Your task to perform on an android device: open a new tab in the chrome app Image 0: 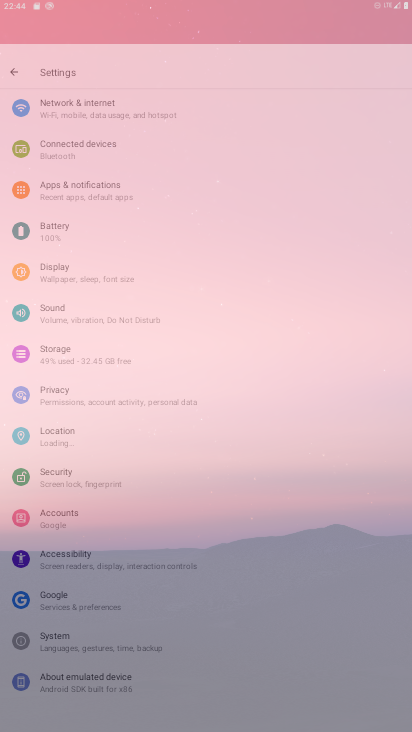
Step 0: click (214, 235)
Your task to perform on an android device: open a new tab in the chrome app Image 1: 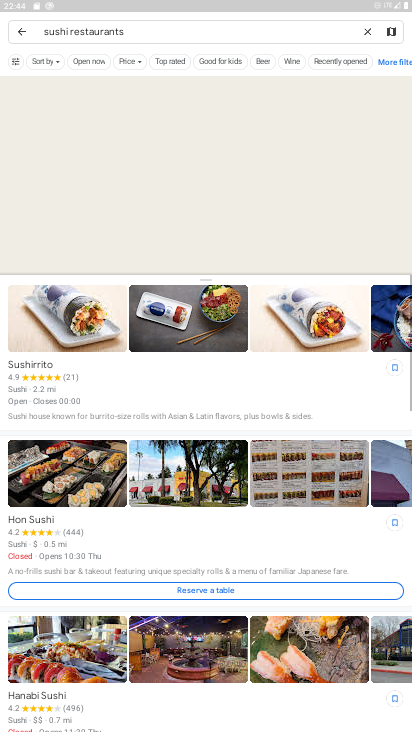
Step 1: press home button
Your task to perform on an android device: open a new tab in the chrome app Image 2: 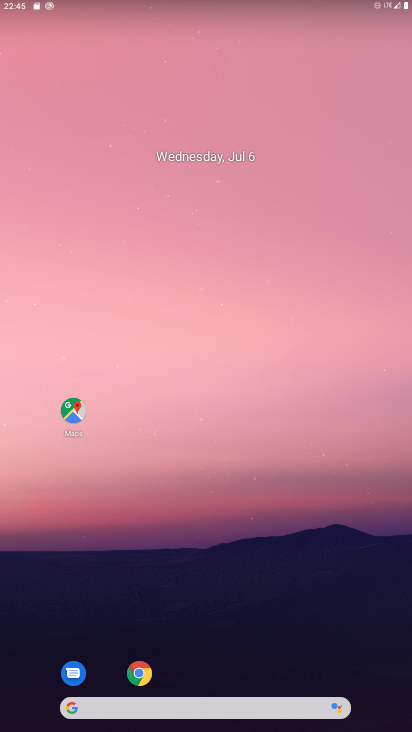
Step 2: click (143, 685)
Your task to perform on an android device: open a new tab in the chrome app Image 3: 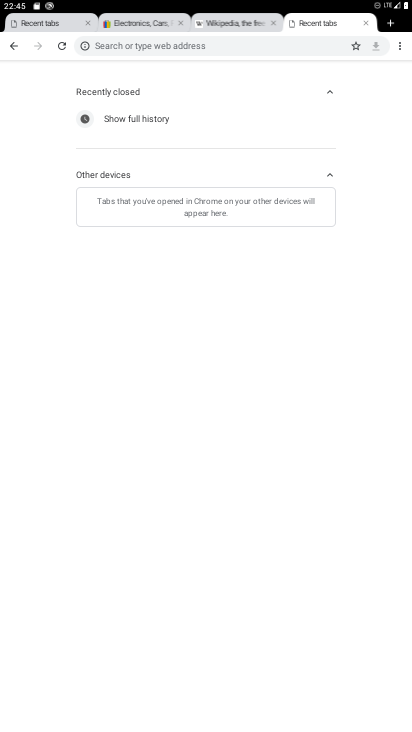
Step 3: click (392, 22)
Your task to perform on an android device: open a new tab in the chrome app Image 4: 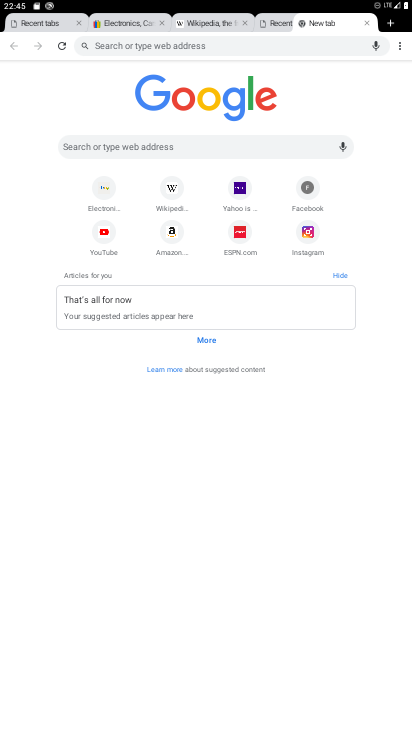
Step 4: task complete